Your task to perform on an android device: turn on the 24-hour format for clock Image 0: 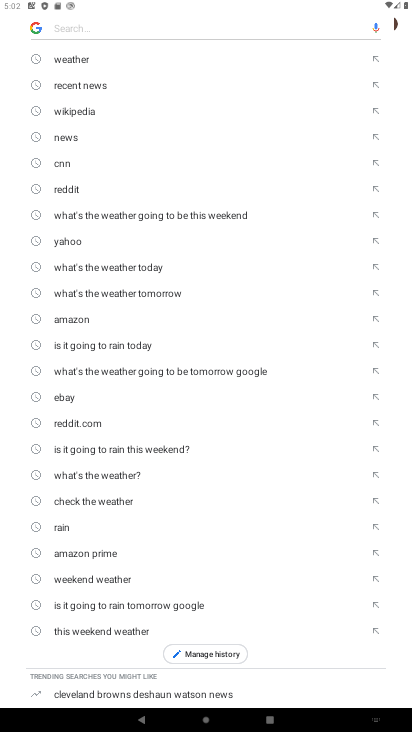
Step 0: press home button
Your task to perform on an android device: turn on the 24-hour format for clock Image 1: 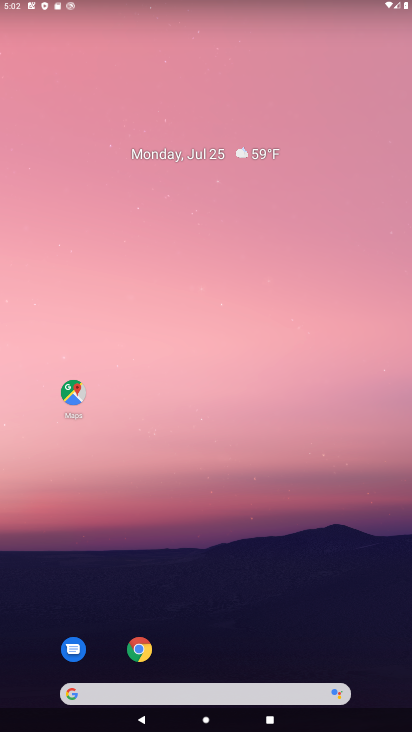
Step 1: drag from (320, 581) to (226, 11)
Your task to perform on an android device: turn on the 24-hour format for clock Image 2: 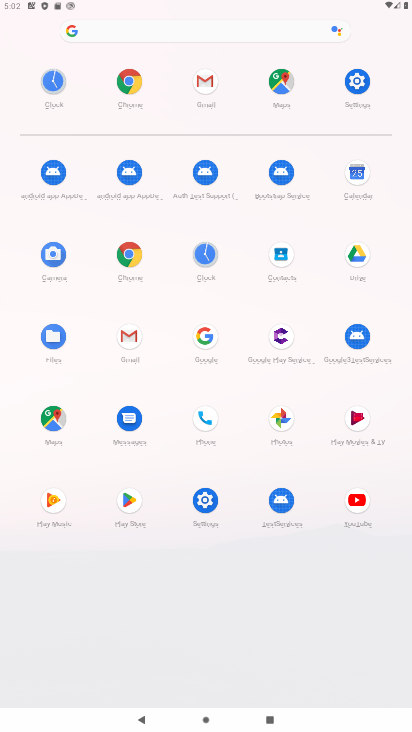
Step 2: click (192, 257)
Your task to perform on an android device: turn on the 24-hour format for clock Image 3: 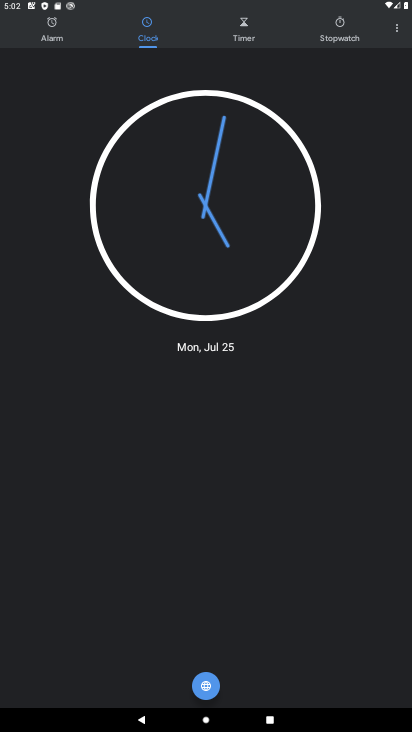
Step 3: click (393, 25)
Your task to perform on an android device: turn on the 24-hour format for clock Image 4: 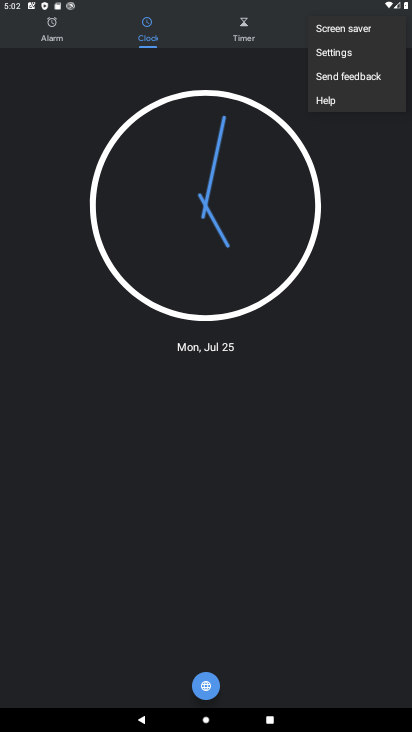
Step 4: click (338, 43)
Your task to perform on an android device: turn on the 24-hour format for clock Image 5: 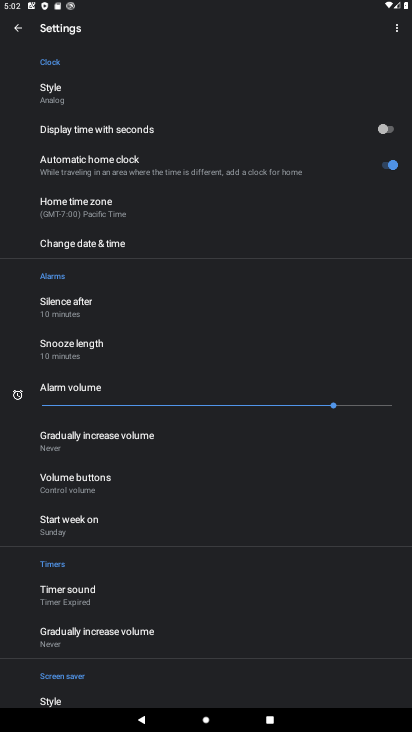
Step 5: click (92, 236)
Your task to perform on an android device: turn on the 24-hour format for clock Image 6: 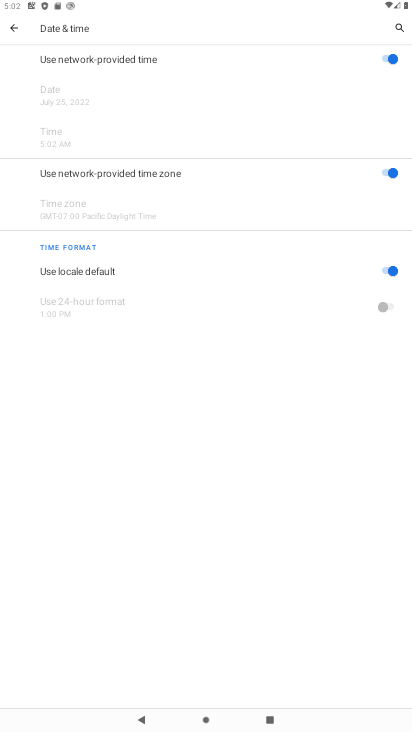
Step 6: click (386, 265)
Your task to perform on an android device: turn on the 24-hour format for clock Image 7: 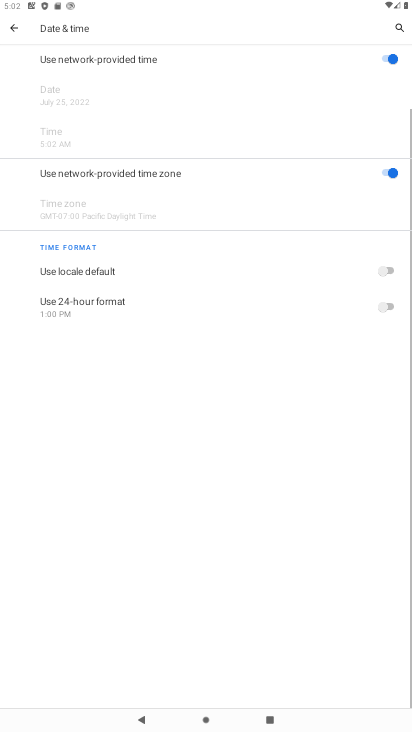
Step 7: click (381, 308)
Your task to perform on an android device: turn on the 24-hour format for clock Image 8: 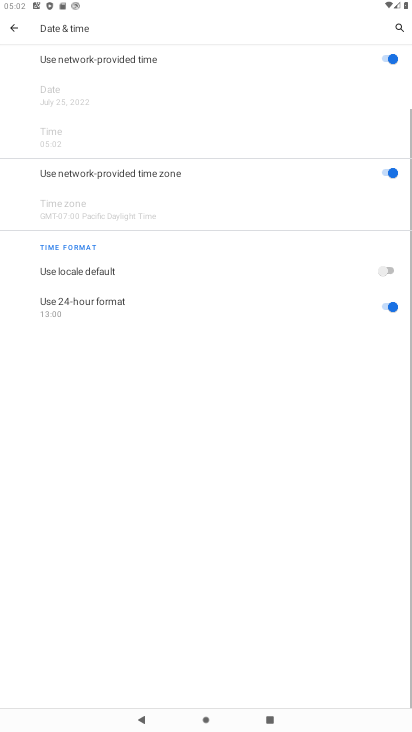
Step 8: task complete